Your task to perform on an android device: Open the web browser Image 0: 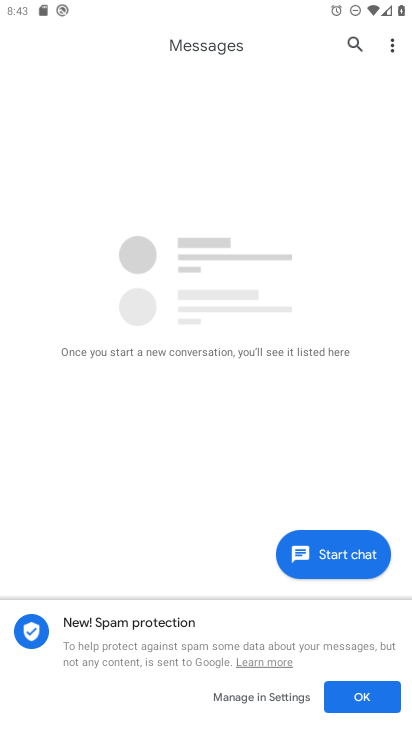
Step 0: press home button
Your task to perform on an android device: Open the web browser Image 1: 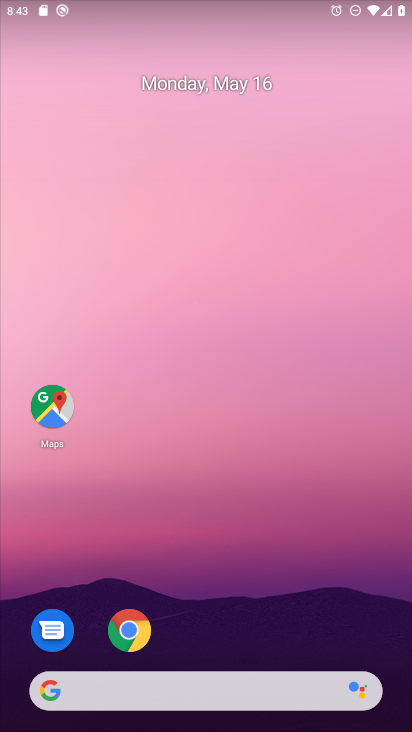
Step 1: click (128, 628)
Your task to perform on an android device: Open the web browser Image 2: 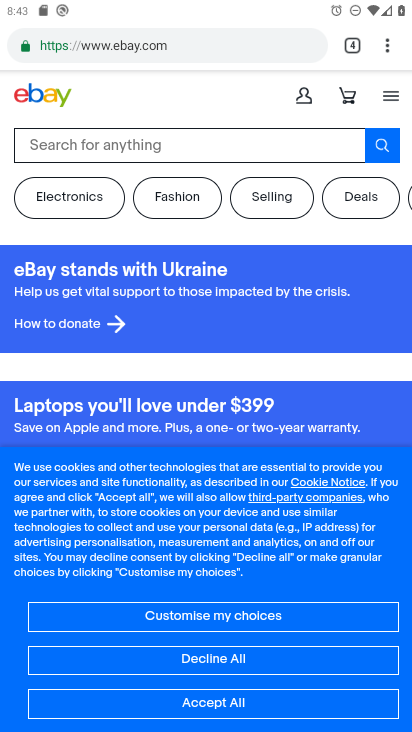
Step 2: task complete